Your task to perform on an android device: Go to eBay Image 0: 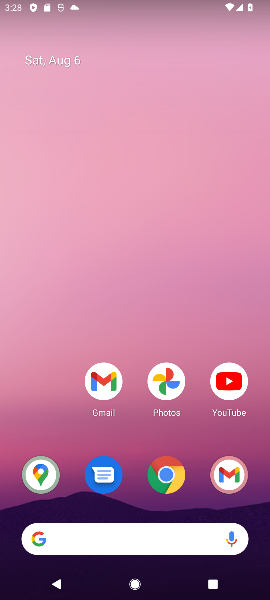
Step 0: click (63, 539)
Your task to perform on an android device: Go to eBay Image 1: 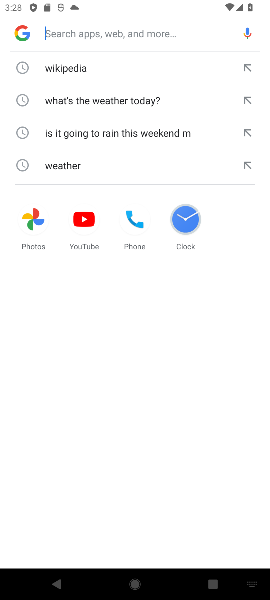
Step 1: type "eBay"
Your task to perform on an android device: Go to eBay Image 2: 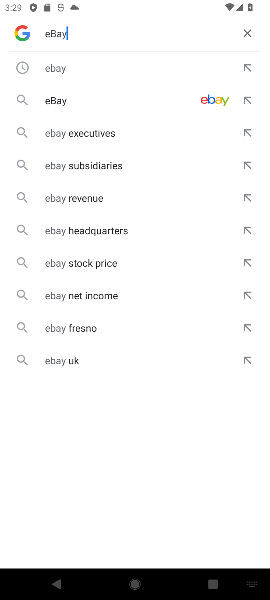
Step 2: click (57, 108)
Your task to perform on an android device: Go to eBay Image 3: 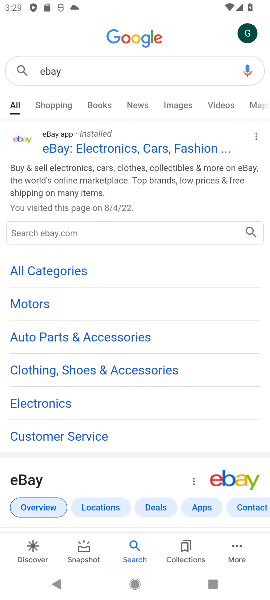
Step 3: task complete